Your task to perform on an android device: Toggle the flashlight Image 0: 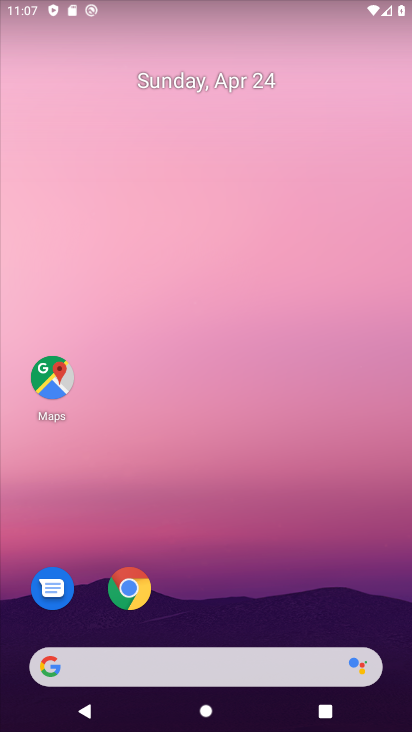
Step 0: drag from (255, 392) to (257, 52)
Your task to perform on an android device: Toggle the flashlight Image 1: 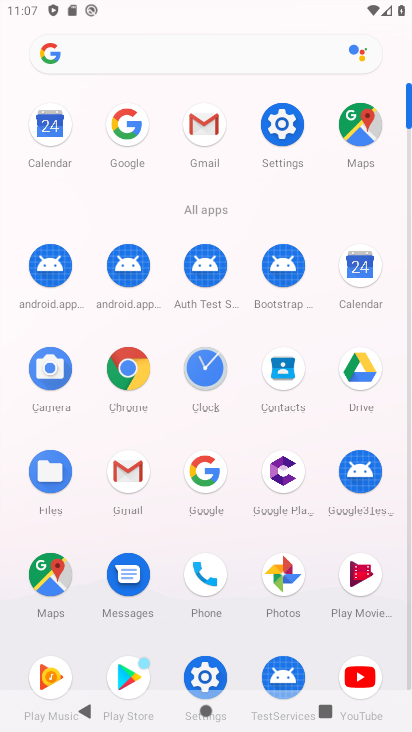
Step 1: click (282, 136)
Your task to perform on an android device: Toggle the flashlight Image 2: 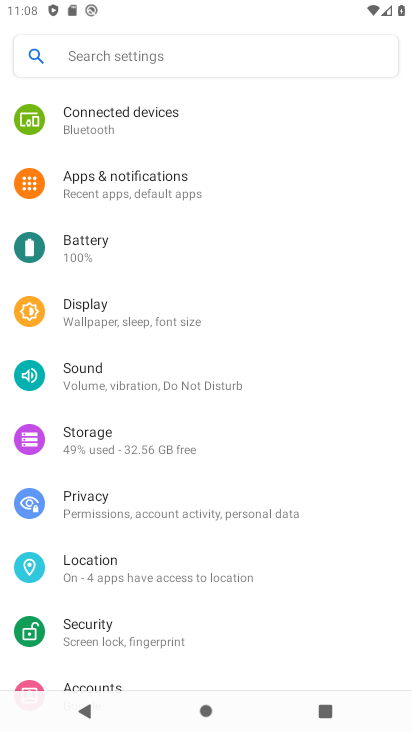
Step 2: click (138, 184)
Your task to perform on an android device: Toggle the flashlight Image 3: 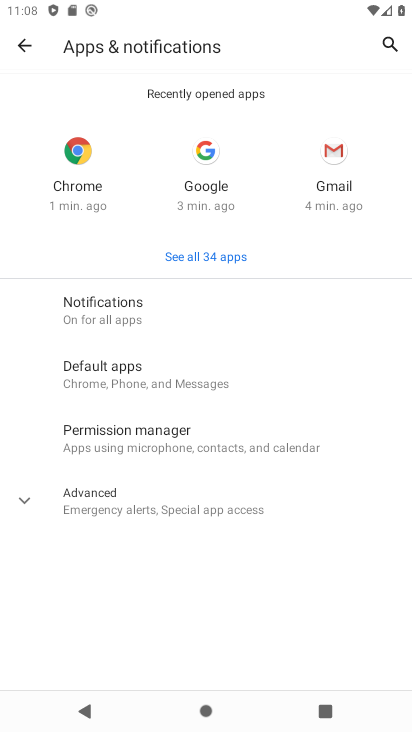
Step 3: task complete